Your task to perform on an android device: turn on notifications settings in the gmail app Image 0: 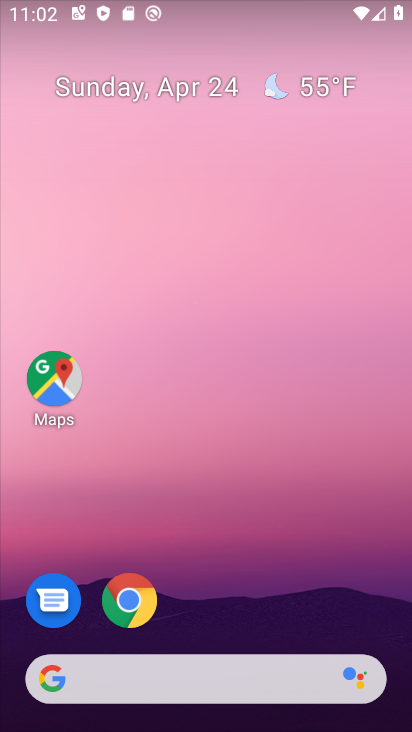
Step 0: drag from (213, 632) to (246, 32)
Your task to perform on an android device: turn on notifications settings in the gmail app Image 1: 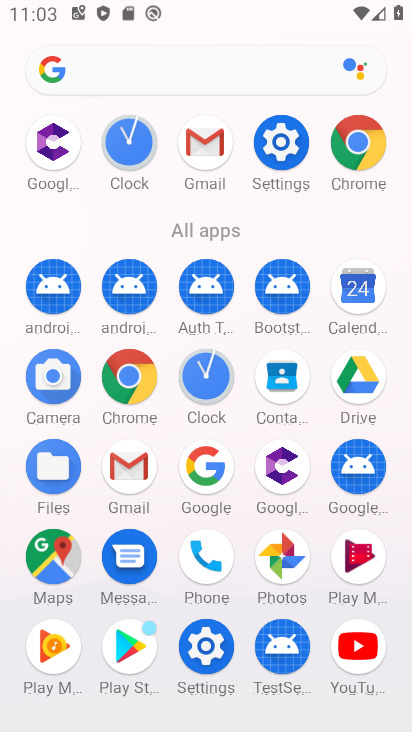
Step 1: click (207, 149)
Your task to perform on an android device: turn on notifications settings in the gmail app Image 2: 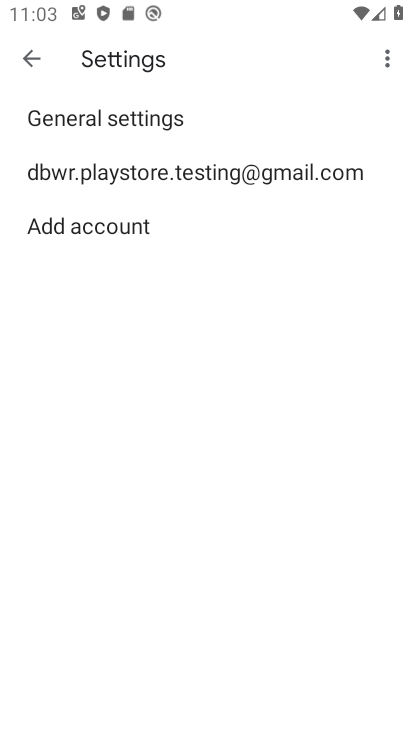
Step 2: click (110, 164)
Your task to perform on an android device: turn on notifications settings in the gmail app Image 3: 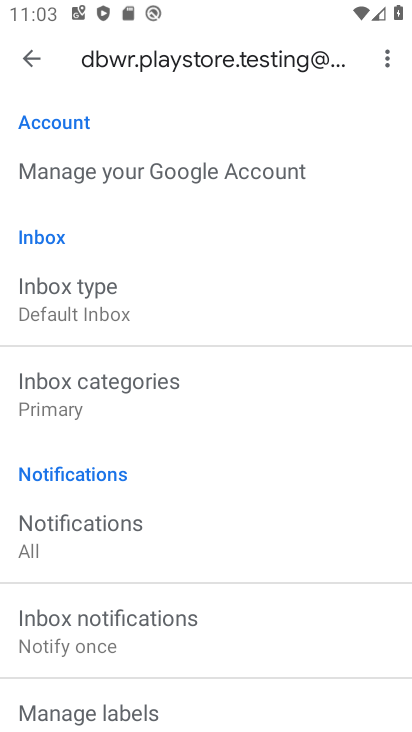
Step 3: click (262, 544)
Your task to perform on an android device: turn on notifications settings in the gmail app Image 4: 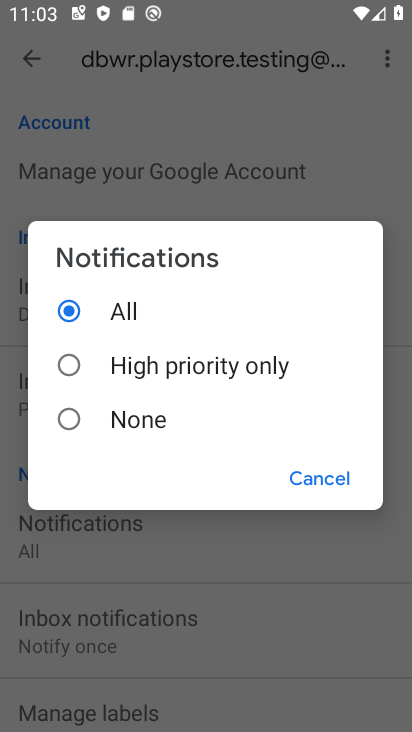
Step 4: task complete